Your task to perform on an android device: When is my next meeting? Image 0: 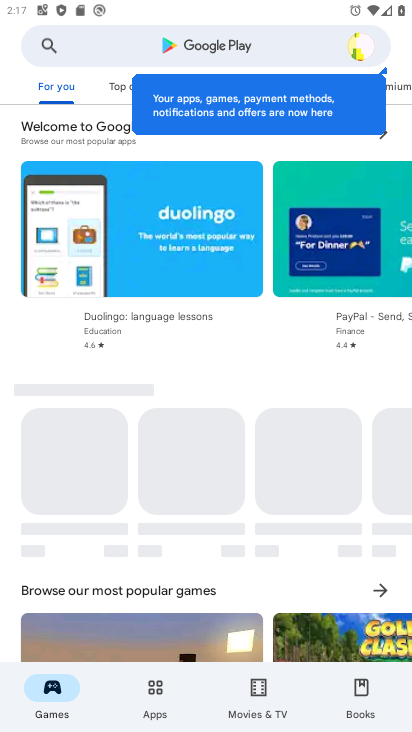
Step 0: press home button
Your task to perform on an android device: When is my next meeting? Image 1: 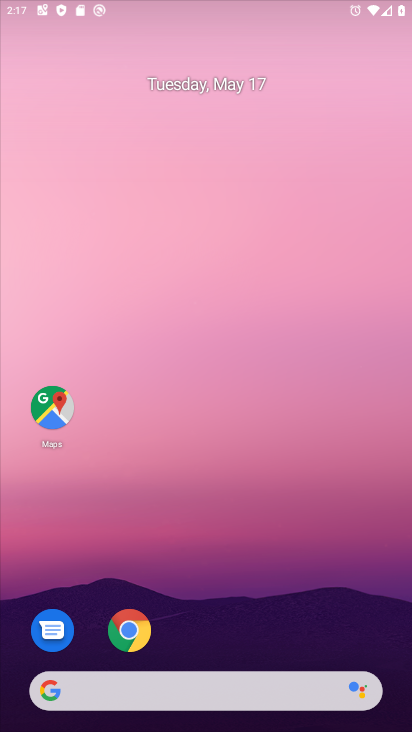
Step 1: drag from (355, 625) to (345, 186)
Your task to perform on an android device: When is my next meeting? Image 2: 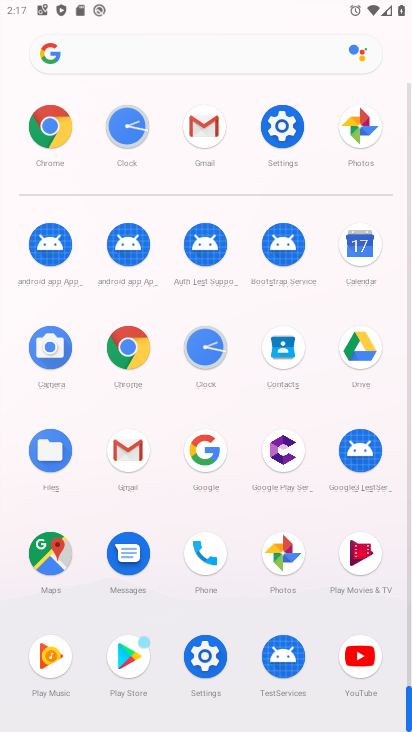
Step 2: click (142, 357)
Your task to perform on an android device: When is my next meeting? Image 3: 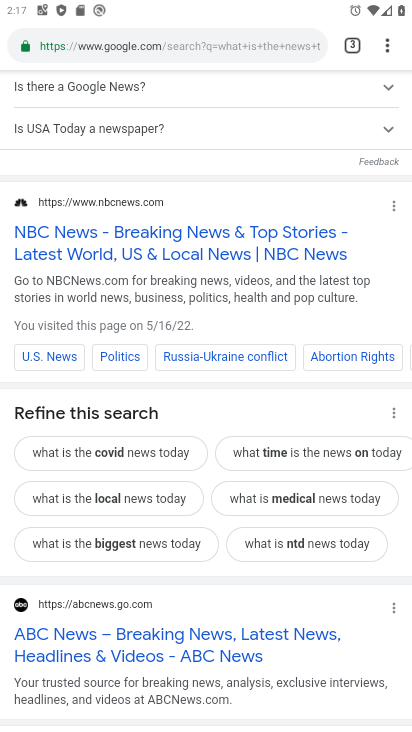
Step 3: drag from (242, 92) to (215, 509)
Your task to perform on an android device: When is my next meeting? Image 4: 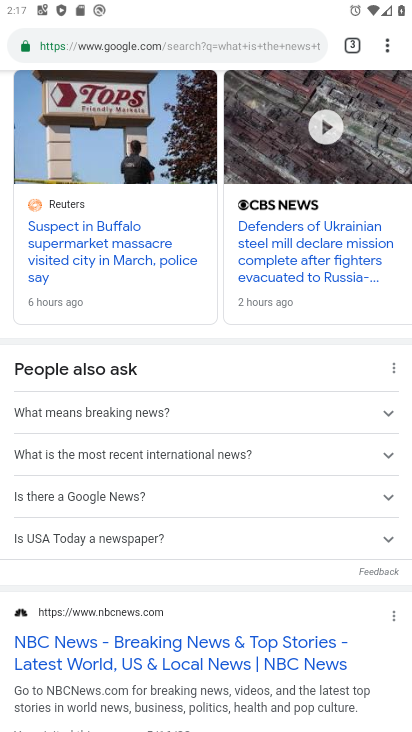
Step 4: click (204, 52)
Your task to perform on an android device: When is my next meeting? Image 5: 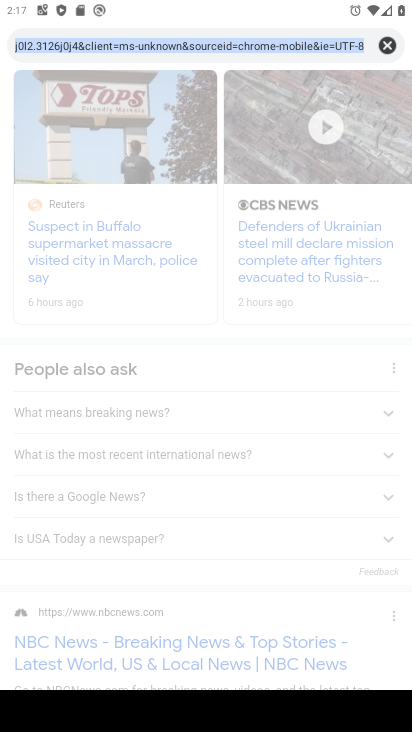
Step 5: click (387, 46)
Your task to perform on an android device: When is my next meeting? Image 6: 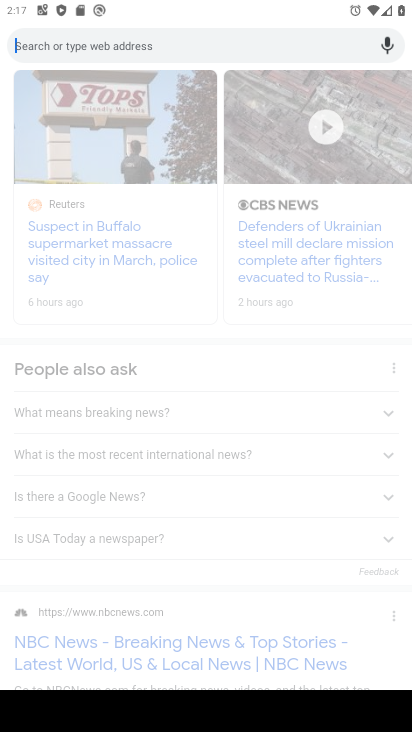
Step 6: type "when is my next meeting "
Your task to perform on an android device: When is my next meeting? Image 7: 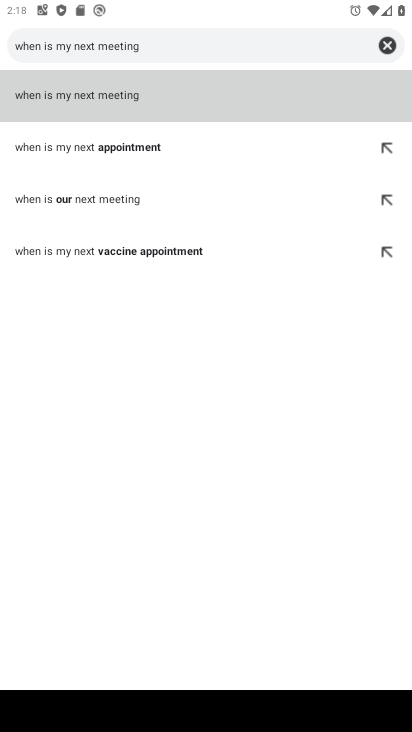
Step 7: click (63, 89)
Your task to perform on an android device: When is my next meeting? Image 8: 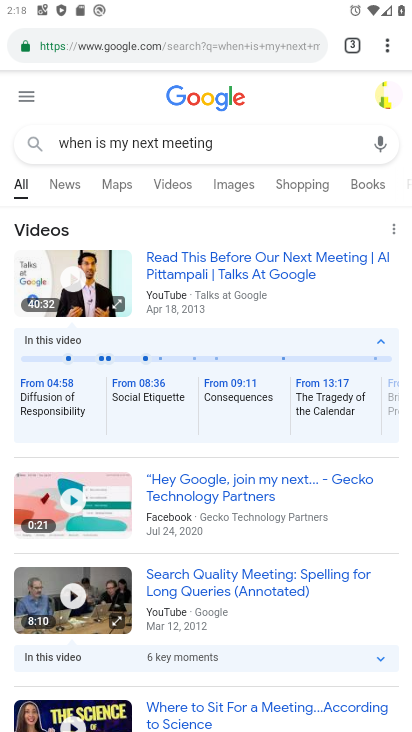
Step 8: task complete